Your task to perform on an android device: install app "Booking.com: Hotels and more" Image 0: 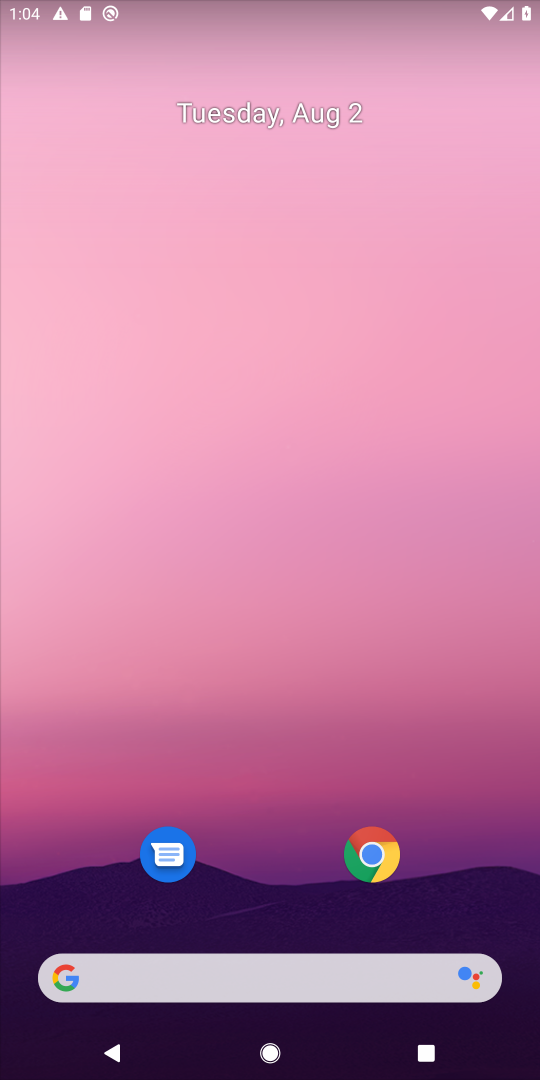
Step 0: click (434, 70)
Your task to perform on an android device: install app "Booking.com: Hotels and more" Image 1: 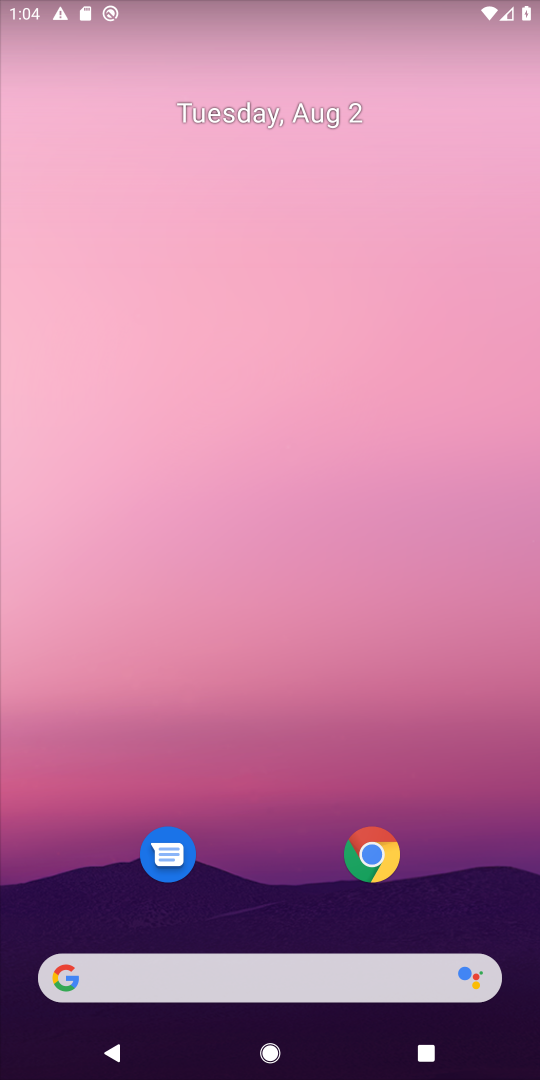
Step 1: drag from (292, 962) to (280, 176)
Your task to perform on an android device: install app "Booking.com: Hotels and more" Image 2: 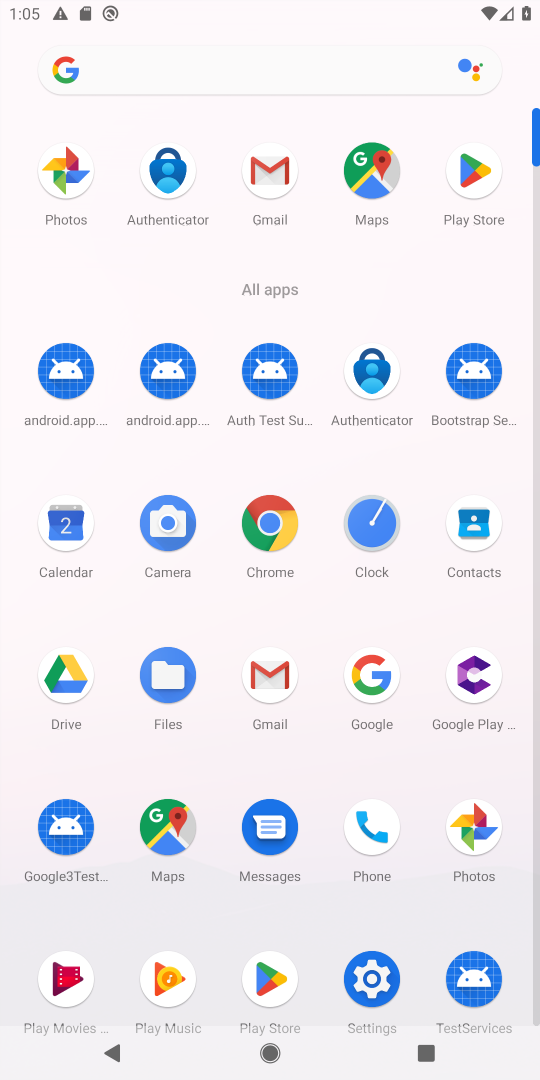
Step 2: click (488, 170)
Your task to perform on an android device: install app "Booking.com: Hotels and more" Image 3: 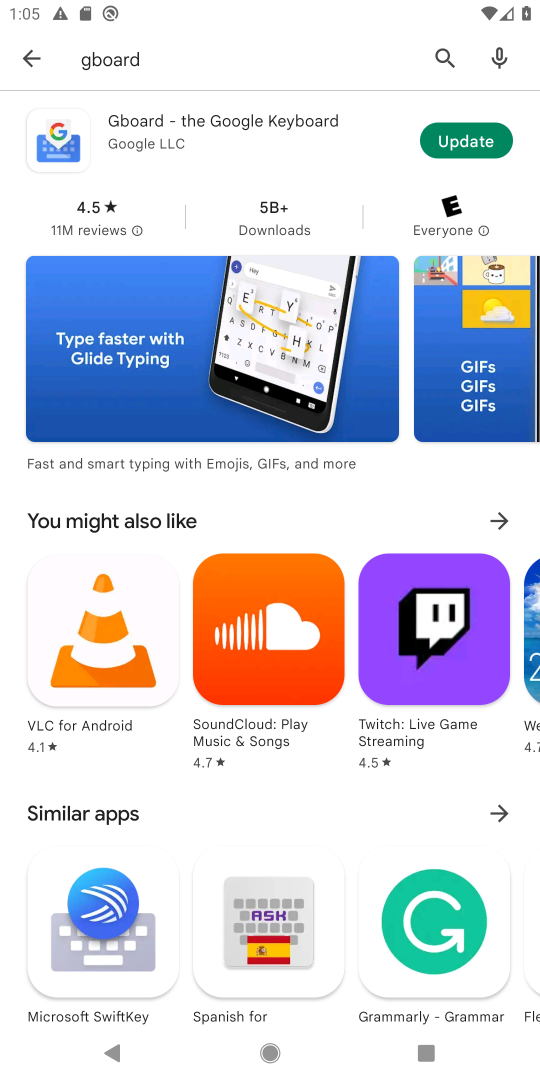
Step 3: click (439, 60)
Your task to perform on an android device: install app "Booking.com: Hotels and more" Image 4: 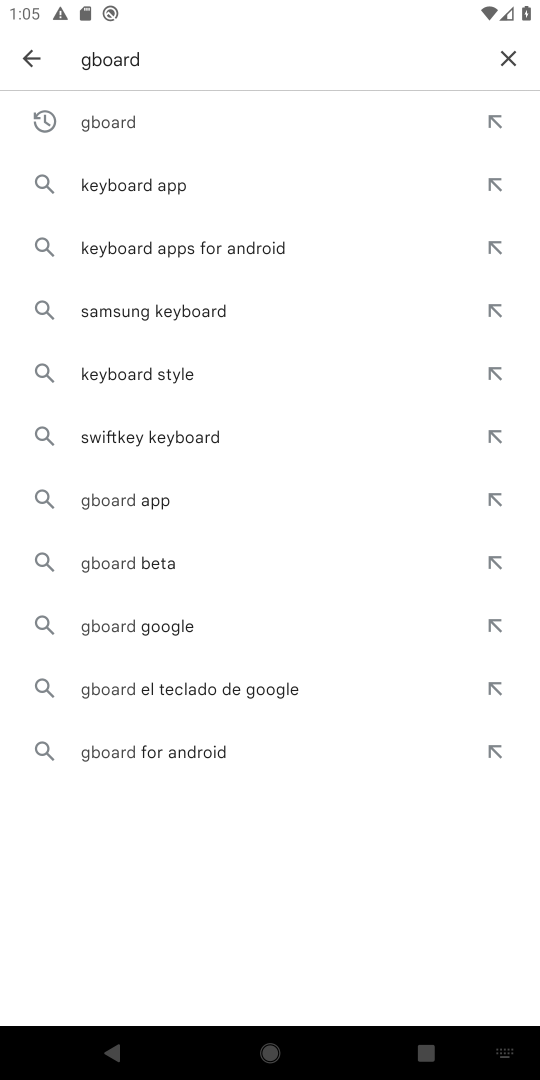
Step 4: click (511, 54)
Your task to perform on an android device: install app "Booking.com: Hotels and more" Image 5: 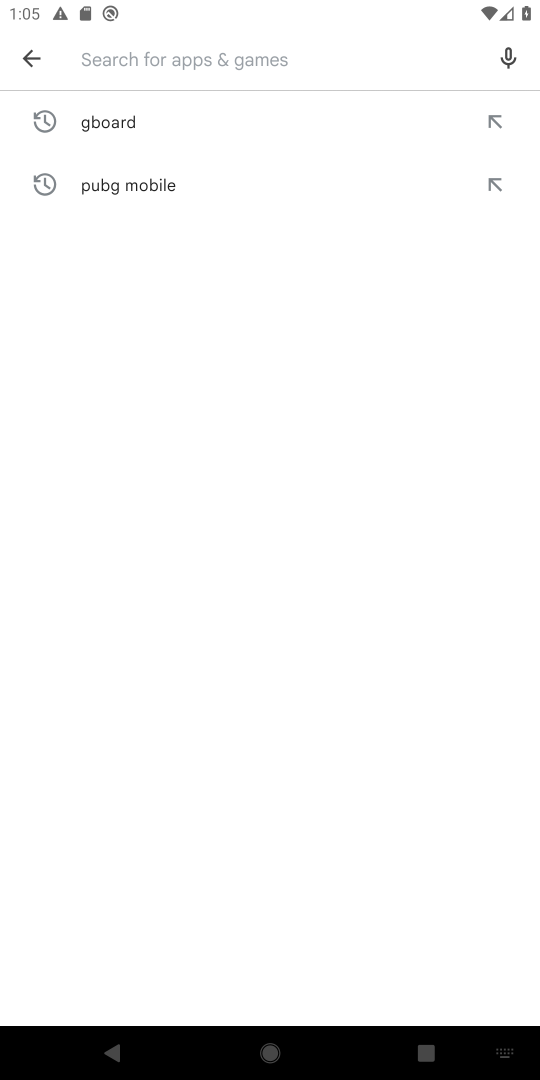
Step 5: type "Booking.com: Hotels and more"
Your task to perform on an android device: install app "Booking.com: Hotels and more" Image 6: 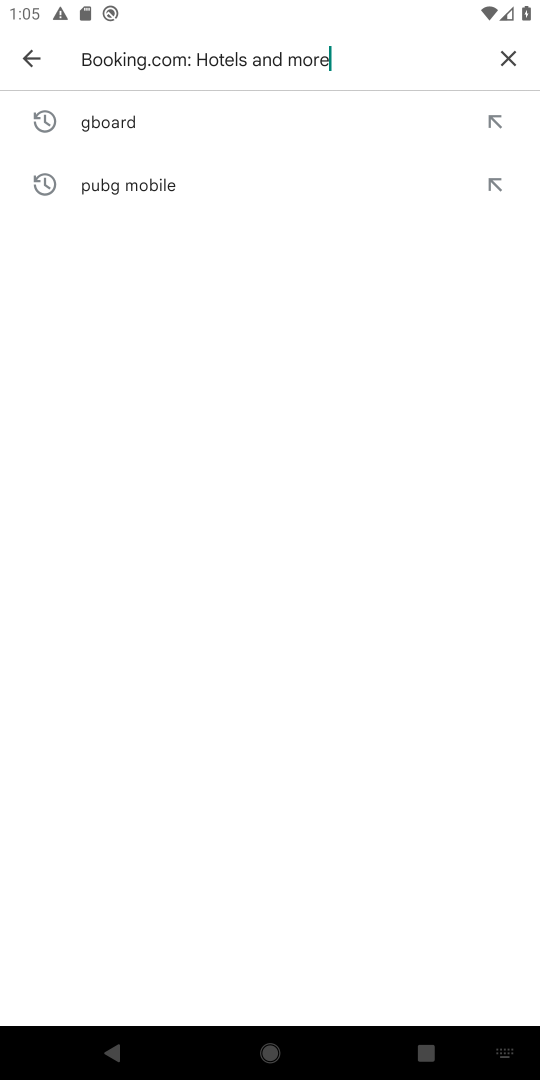
Step 6: type ""
Your task to perform on an android device: install app "Booking.com: Hotels and more" Image 7: 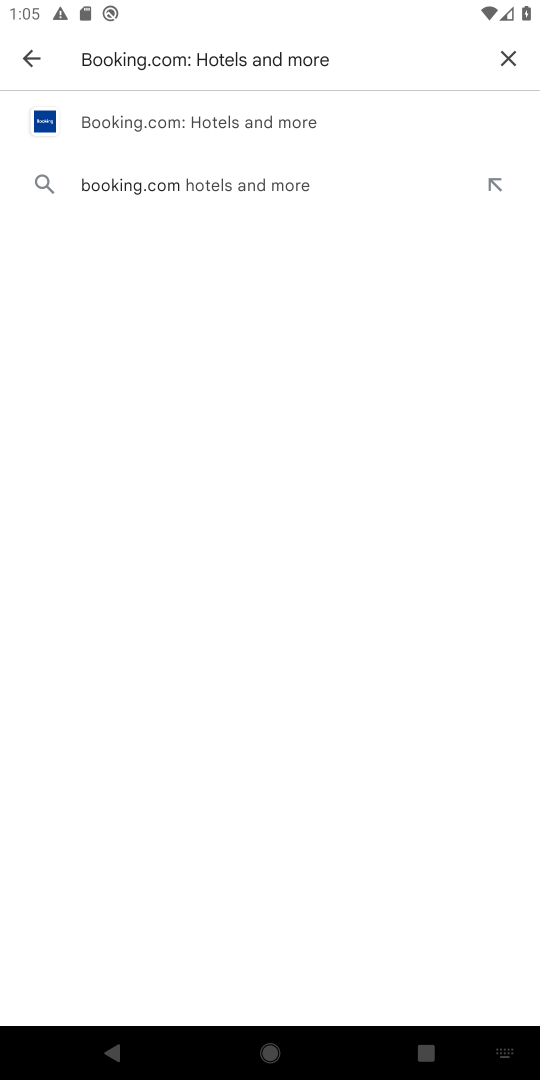
Step 7: click (279, 122)
Your task to perform on an android device: install app "Booking.com: Hotels and more" Image 8: 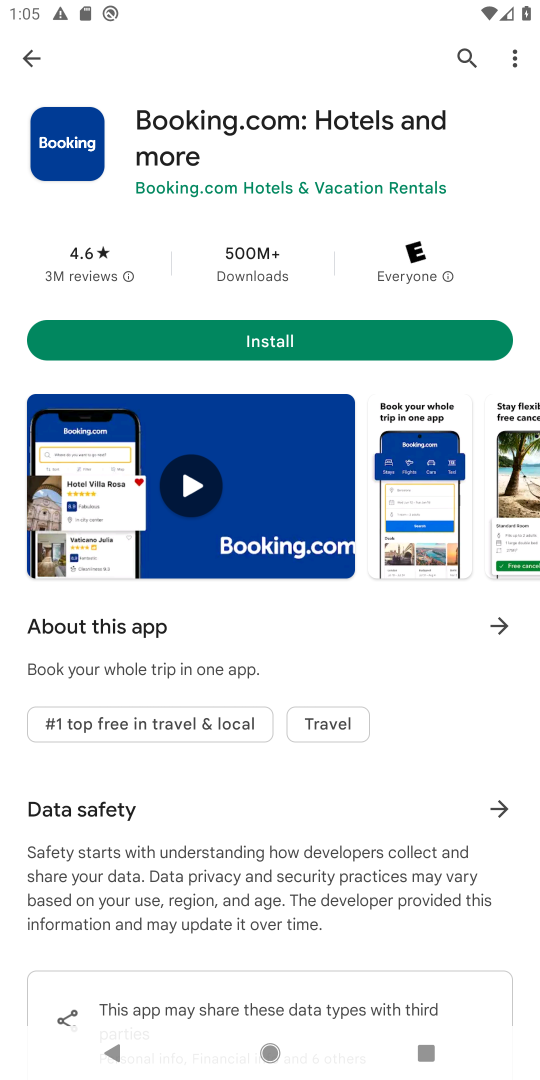
Step 8: click (271, 340)
Your task to perform on an android device: install app "Booking.com: Hotels and more" Image 9: 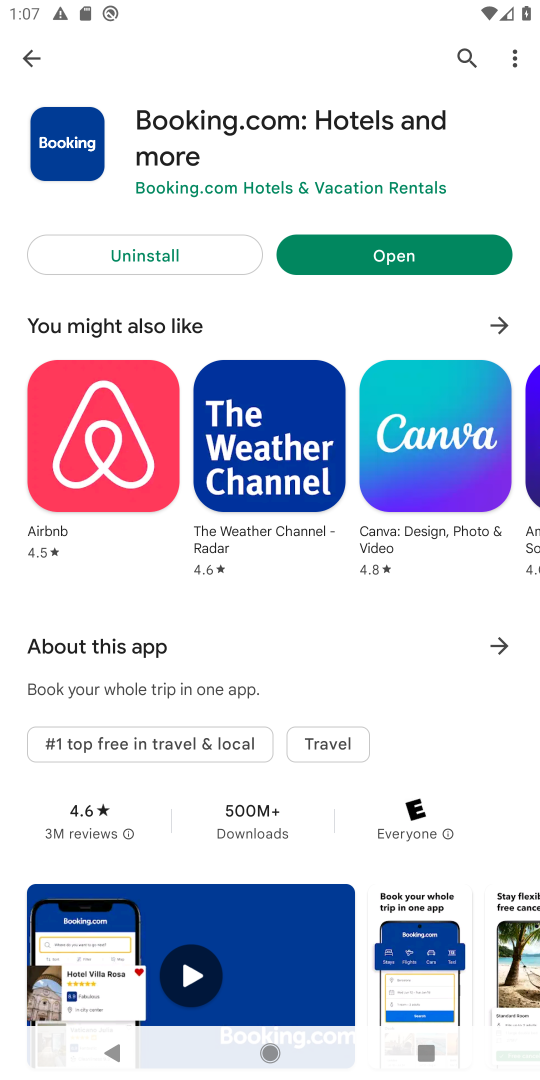
Step 9: task complete